Your task to perform on an android device: clear all cookies in the chrome app Image 0: 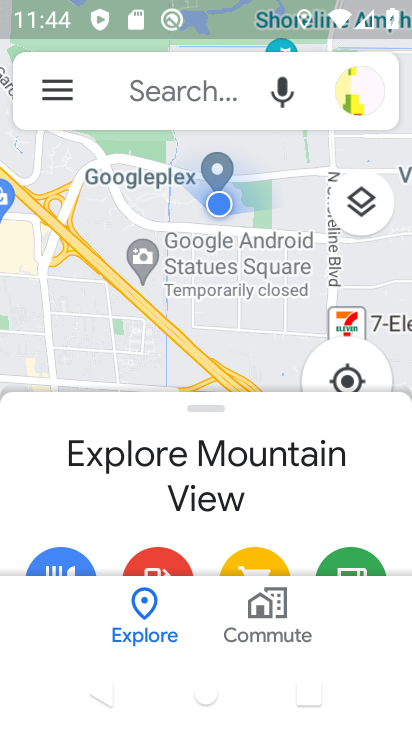
Step 0: press home button
Your task to perform on an android device: clear all cookies in the chrome app Image 1: 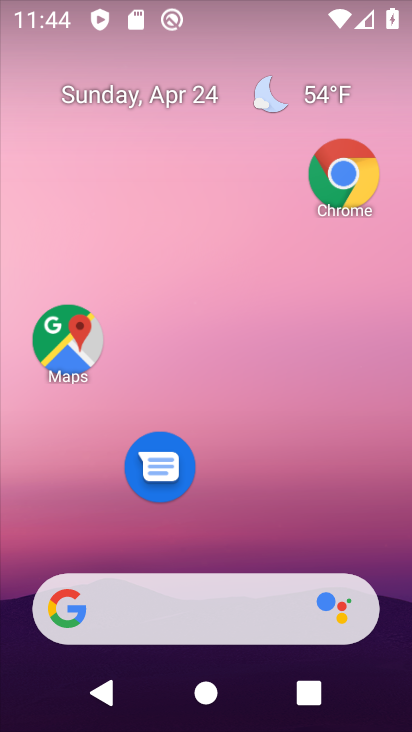
Step 1: drag from (220, 312) to (237, 136)
Your task to perform on an android device: clear all cookies in the chrome app Image 2: 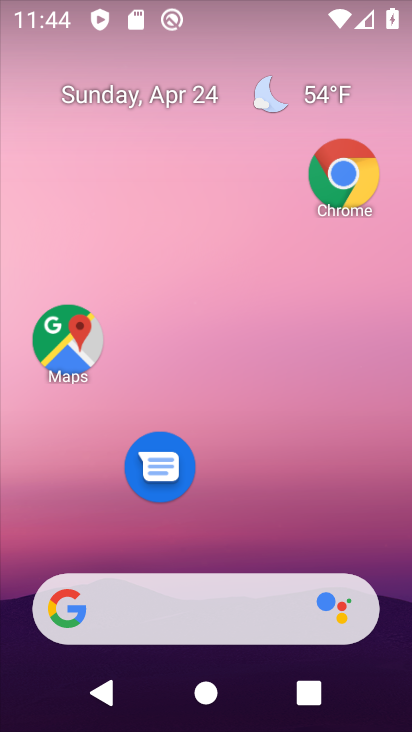
Step 2: drag from (233, 511) to (221, 158)
Your task to perform on an android device: clear all cookies in the chrome app Image 3: 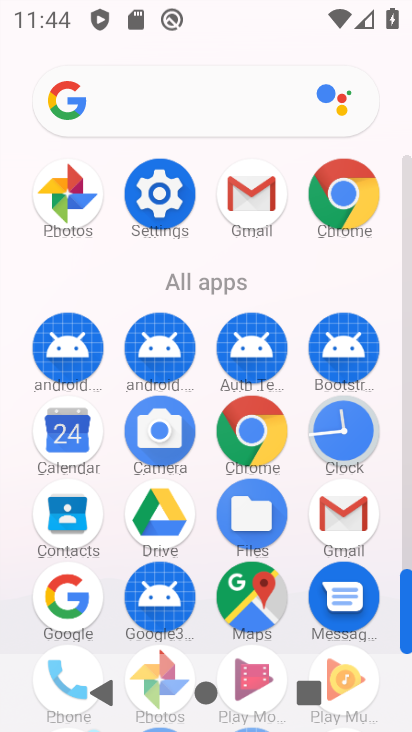
Step 3: click (245, 424)
Your task to perform on an android device: clear all cookies in the chrome app Image 4: 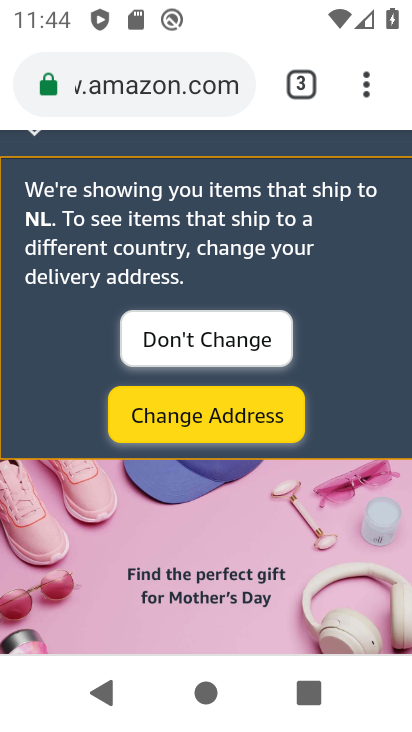
Step 4: drag from (363, 83) to (123, 303)
Your task to perform on an android device: clear all cookies in the chrome app Image 5: 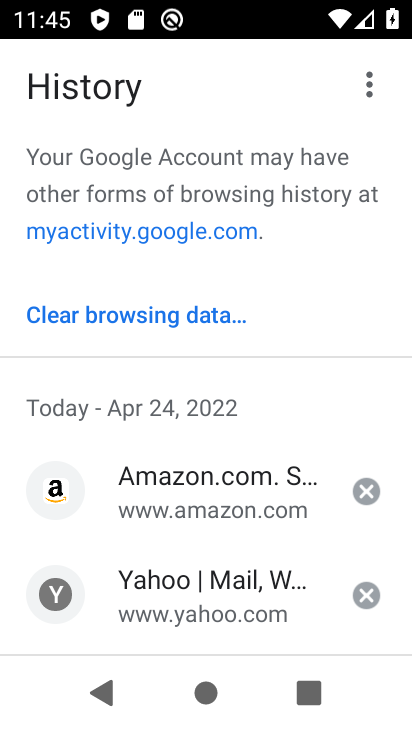
Step 5: click (107, 315)
Your task to perform on an android device: clear all cookies in the chrome app Image 6: 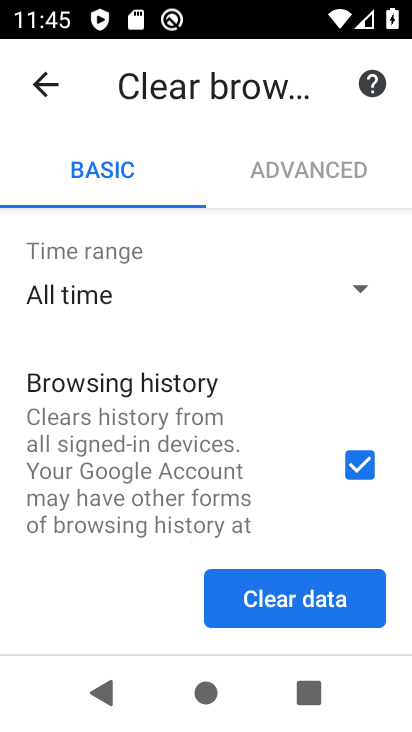
Step 6: drag from (204, 404) to (206, 239)
Your task to perform on an android device: clear all cookies in the chrome app Image 7: 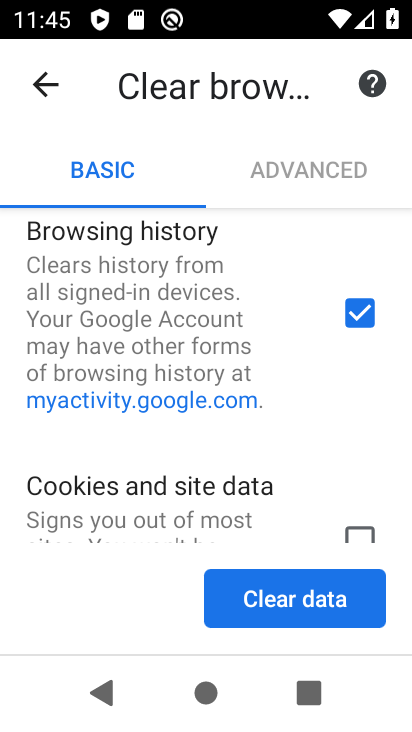
Step 7: click (282, 577)
Your task to perform on an android device: clear all cookies in the chrome app Image 8: 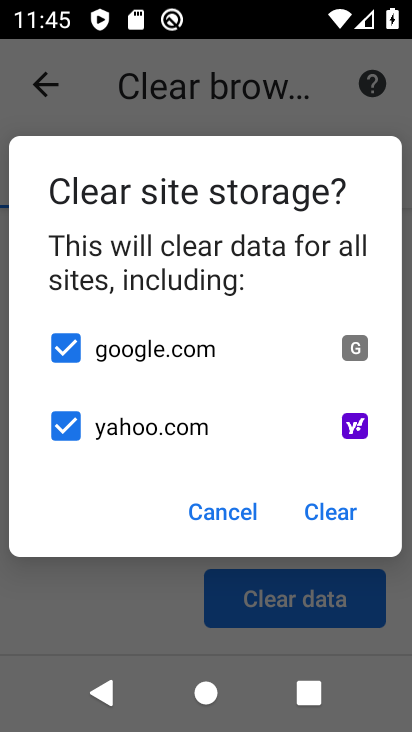
Step 8: click (322, 515)
Your task to perform on an android device: clear all cookies in the chrome app Image 9: 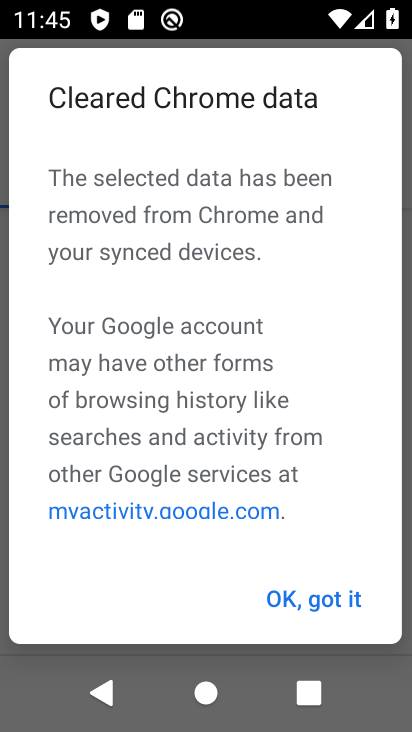
Step 9: click (321, 593)
Your task to perform on an android device: clear all cookies in the chrome app Image 10: 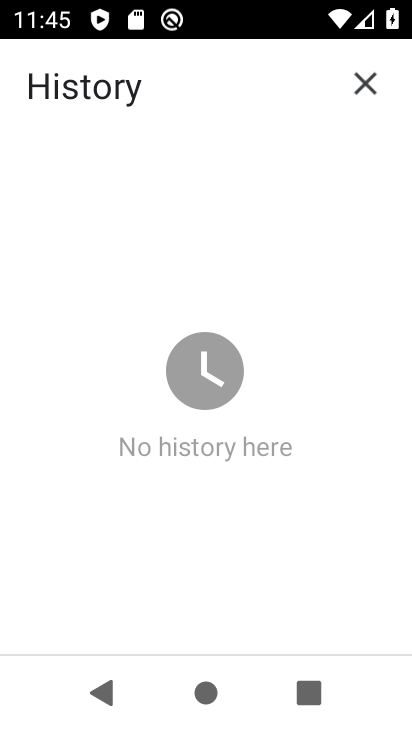
Step 10: task complete